Your task to perform on an android device: open app "DoorDash - Food Delivery" (install if not already installed) Image 0: 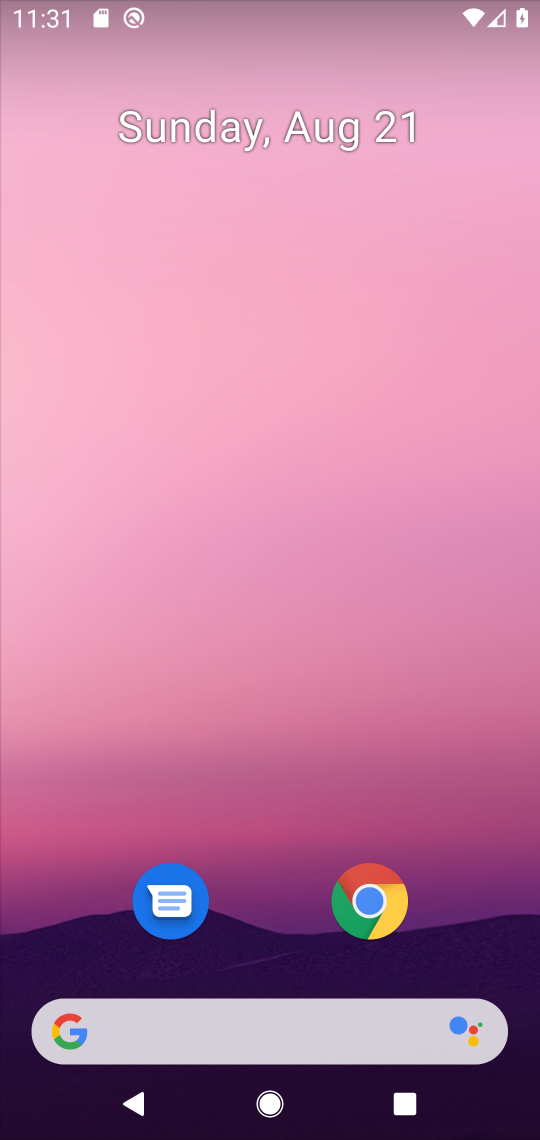
Step 0: drag from (301, 939) to (361, 178)
Your task to perform on an android device: open app "DoorDash - Food Delivery" (install if not already installed) Image 1: 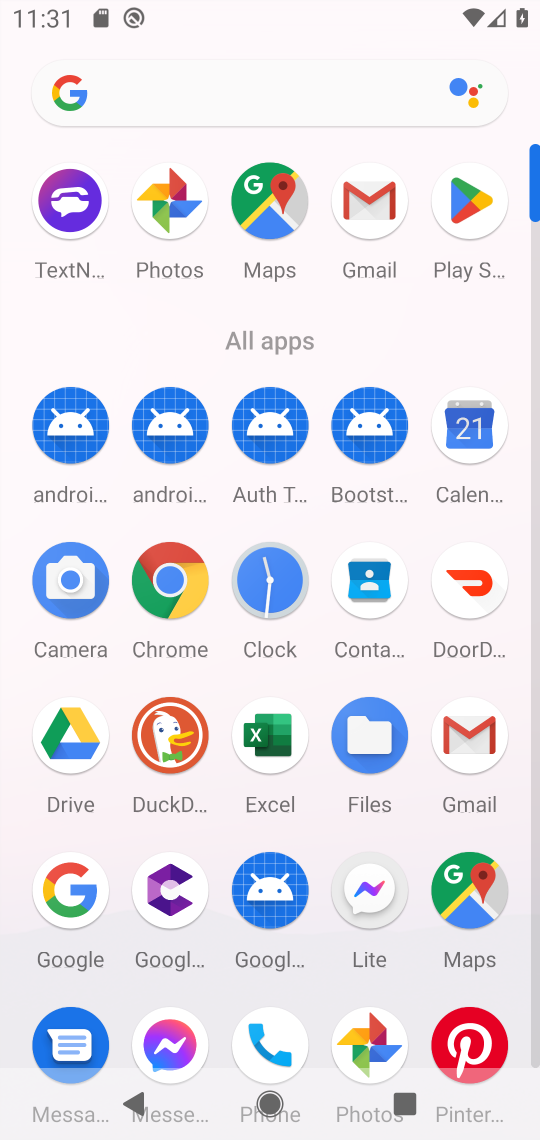
Step 1: click (468, 219)
Your task to perform on an android device: open app "DoorDash - Food Delivery" (install if not already installed) Image 2: 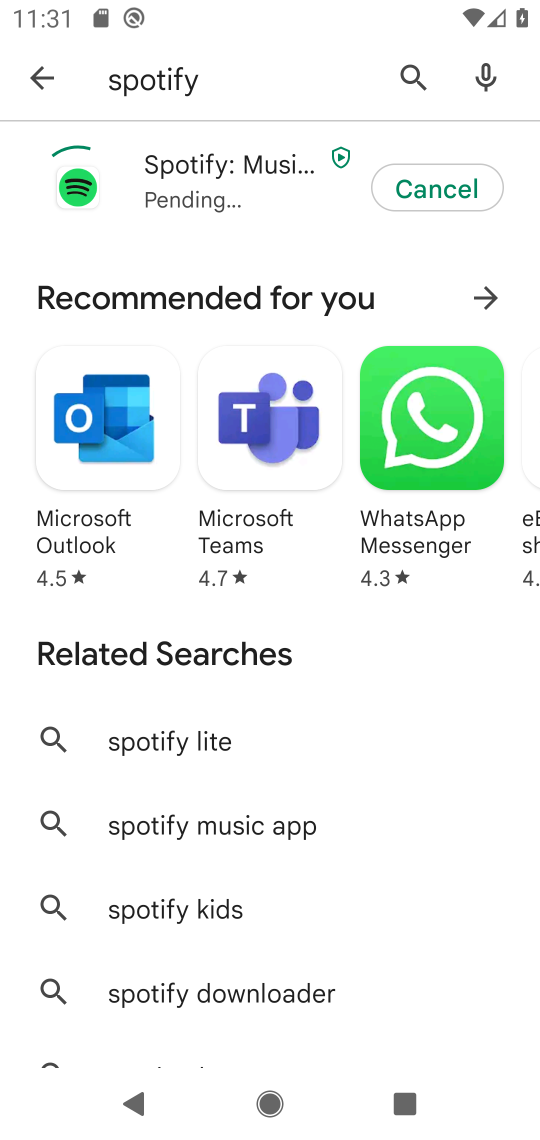
Step 2: click (404, 84)
Your task to perform on an android device: open app "DoorDash - Food Delivery" (install if not already installed) Image 3: 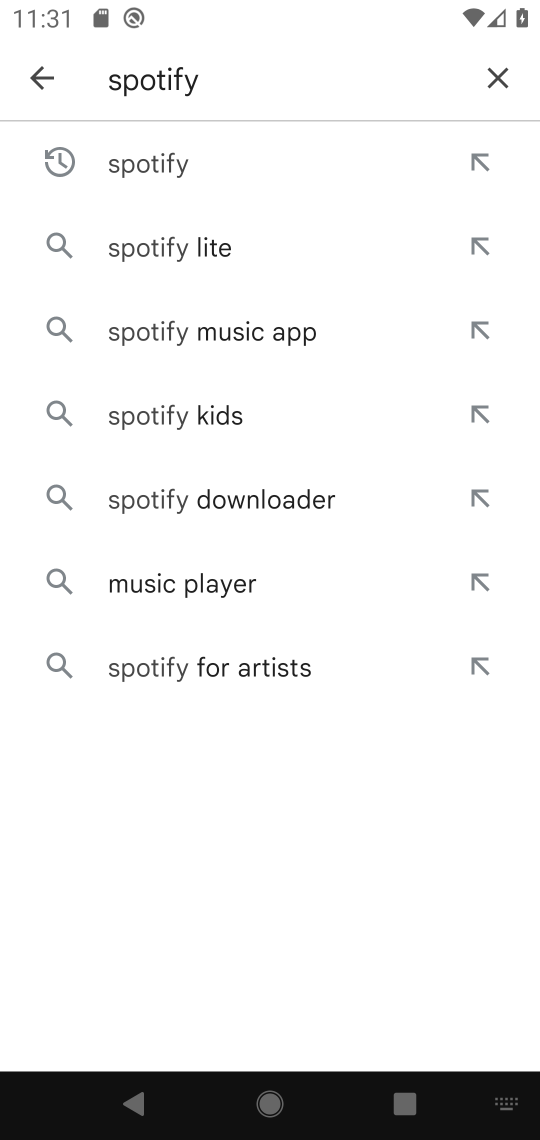
Step 3: click (500, 77)
Your task to perform on an android device: open app "DoorDash - Food Delivery" (install if not already installed) Image 4: 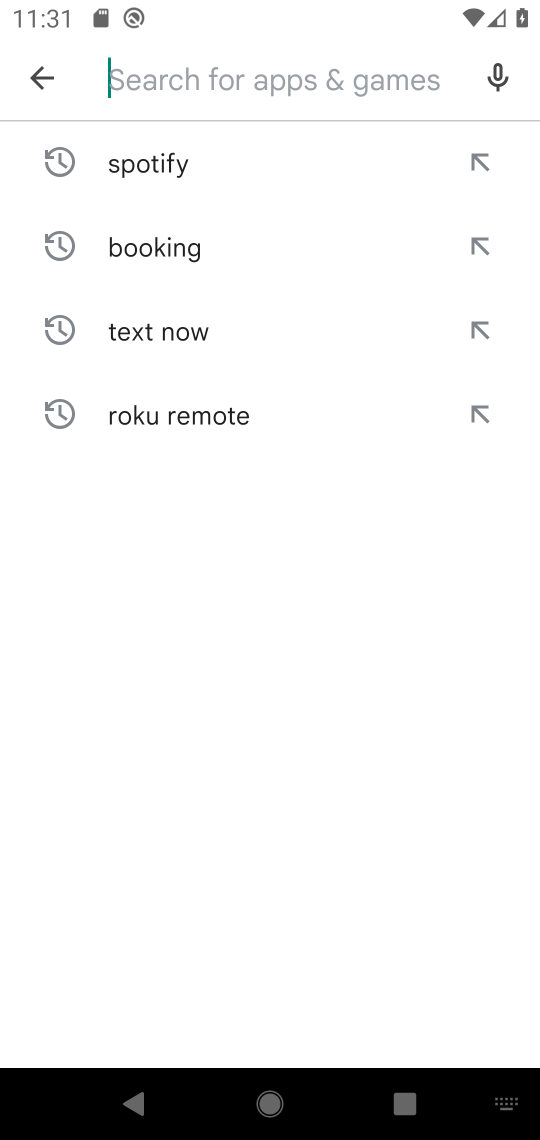
Step 4: type "doordash"
Your task to perform on an android device: open app "DoorDash - Food Delivery" (install if not already installed) Image 5: 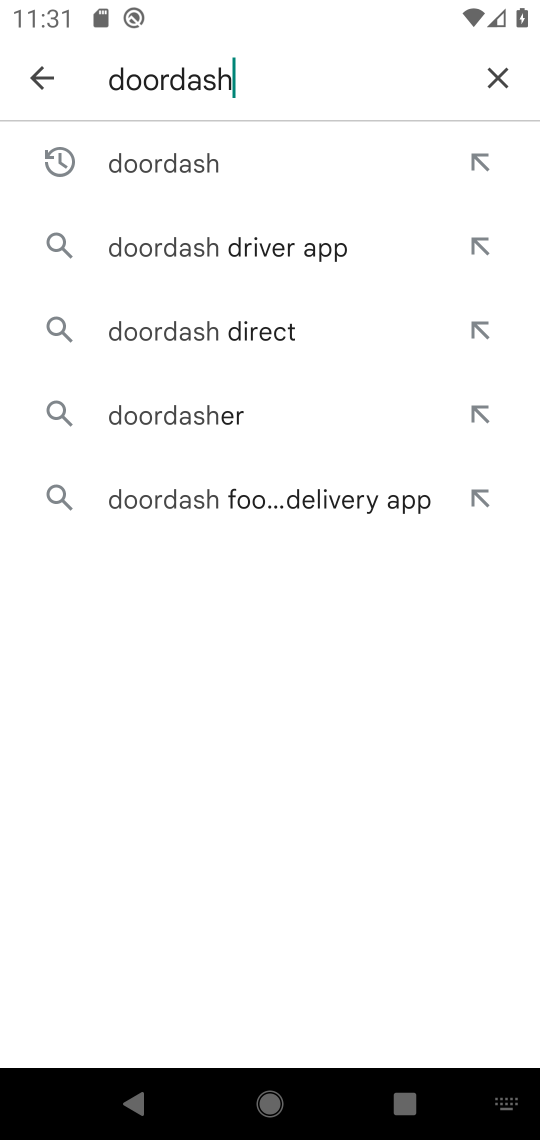
Step 5: click (219, 167)
Your task to perform on an android device: open app "DoorDash - Food Delivery" (install if not already installed) Image 6: 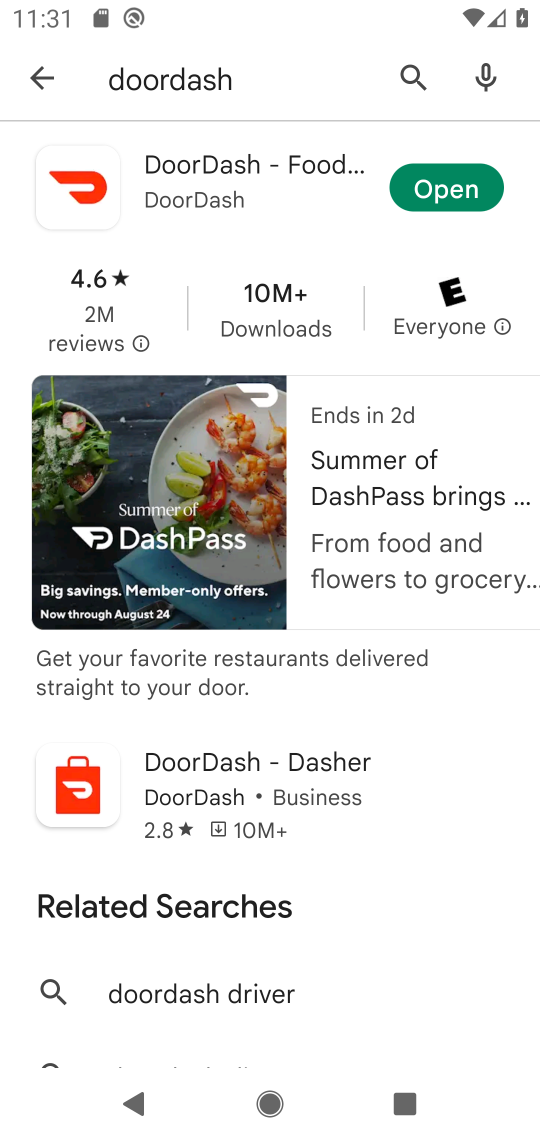
Step 6: task complete